Your task to perform on an android device: toggle notification dots Image 0: 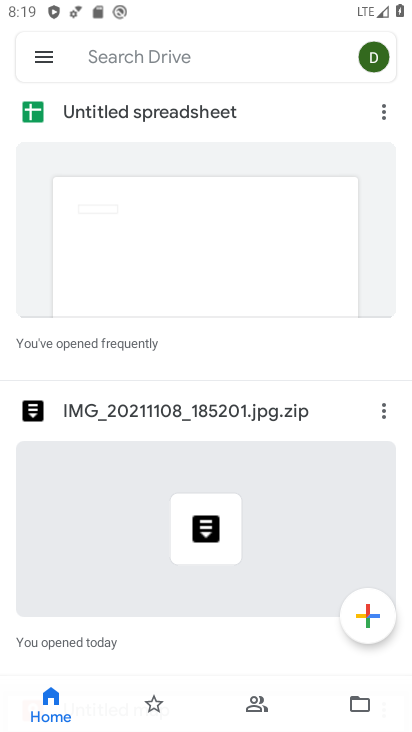
Step 0: press back button
Your task to perform on an android device: toggle notification dots Image 1: 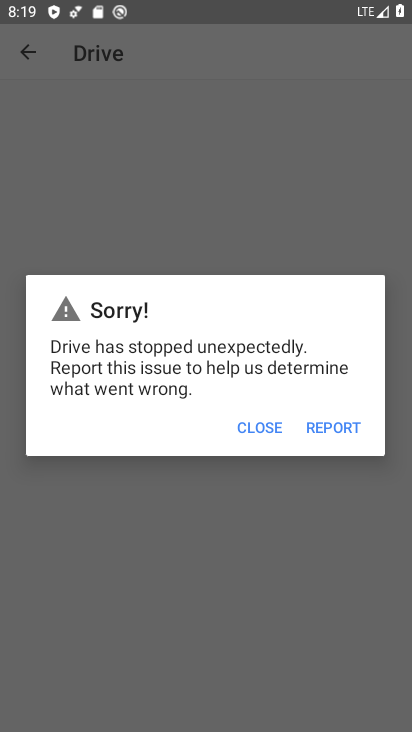
Step 1: press back button
Your task to perform on an android device: toggle notification dots Image 2: 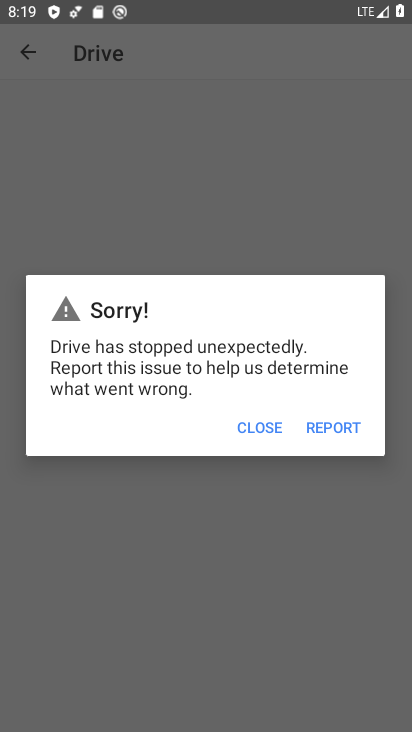
Step 2: press home button
Your task to perform on an android device: toggle notification dots Image 3: 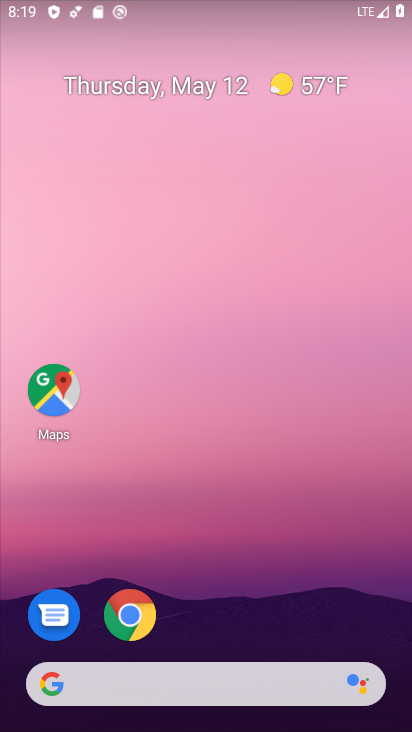
Step 3: drag from (260, 554) to (234, 50)
Your task to perform on an android device: toggle notification dots Image 4: 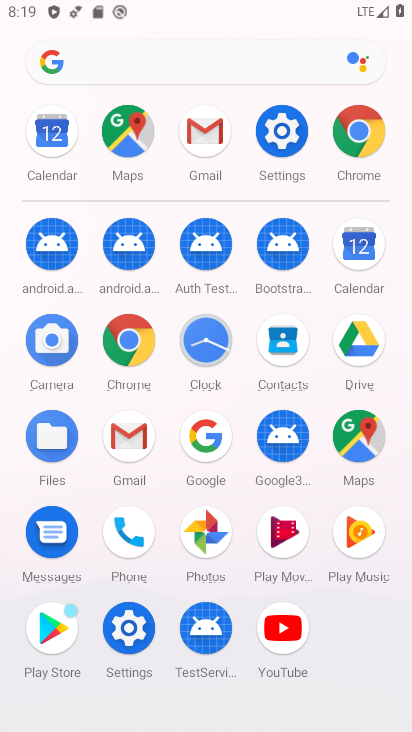
Step 4: click (281, 128)
Your task to perform on an android device: toggle notification dots Image 5: 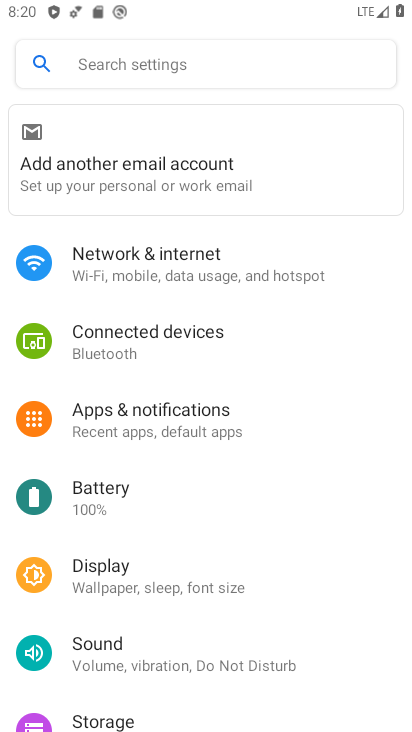
Step 5: click (176, 414)
Your task to perform on an android device: toggle notification dots Image 6: 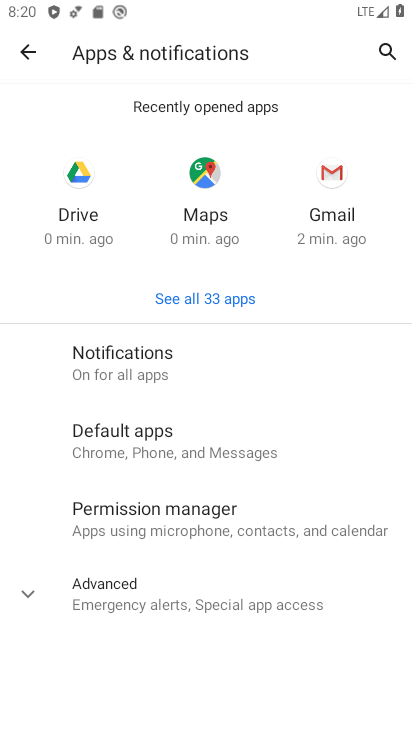
Step 6: click (13, 600)
Your task to perform on an android device: toggle notification dots Image 7: 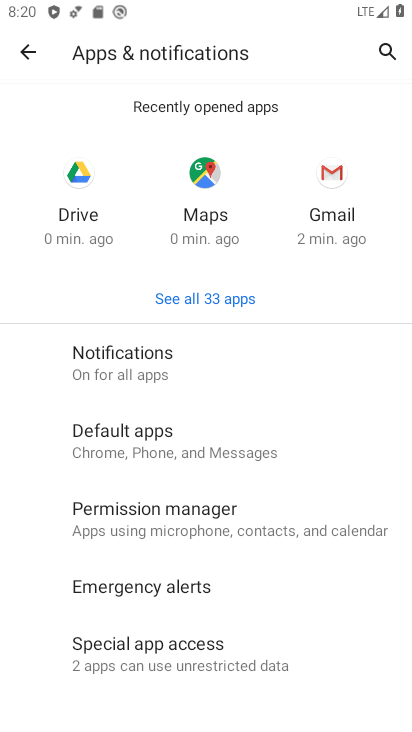
Step 7: drag from (216, 541) to (273, 209)
Your task to perform on an android device: toggle notification dots Image 8: 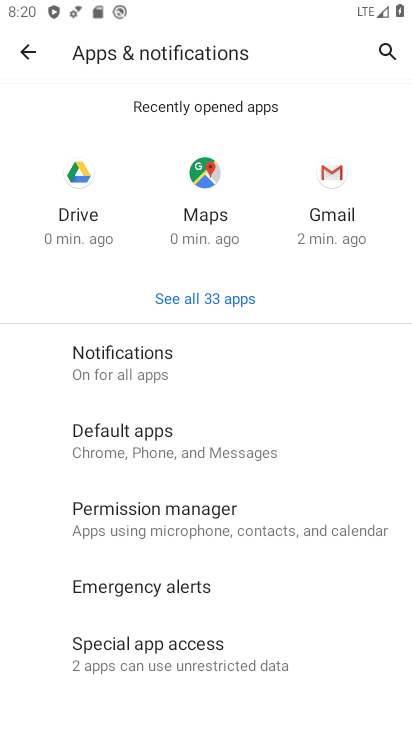
Step 8: click (172, 371)
Your task to perform on an android device: toggle notification dots Image 9: 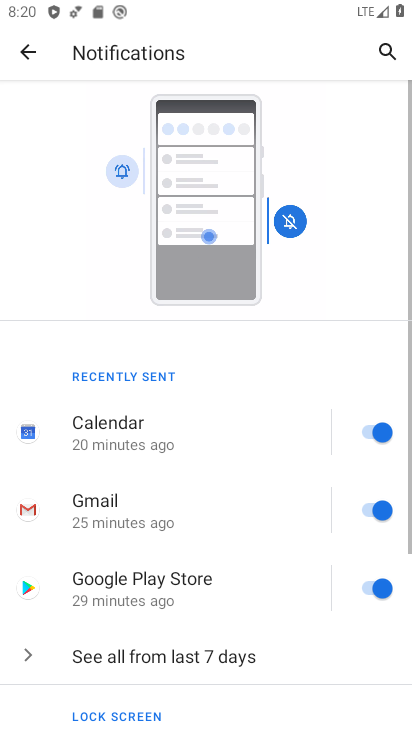
Step 9: drag from (202, 568) to (262, 144)
Your task to perform on an android device: toggle notification dots Image 10: 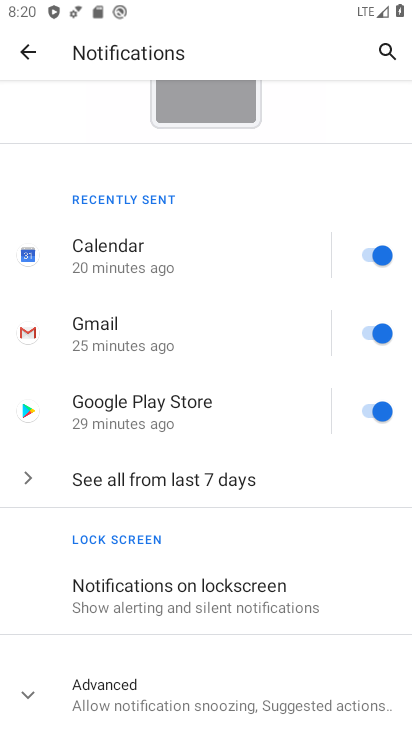
Step 10: click (194, 588)
Your task to perform on an android device: toggle notification dots Image 11: 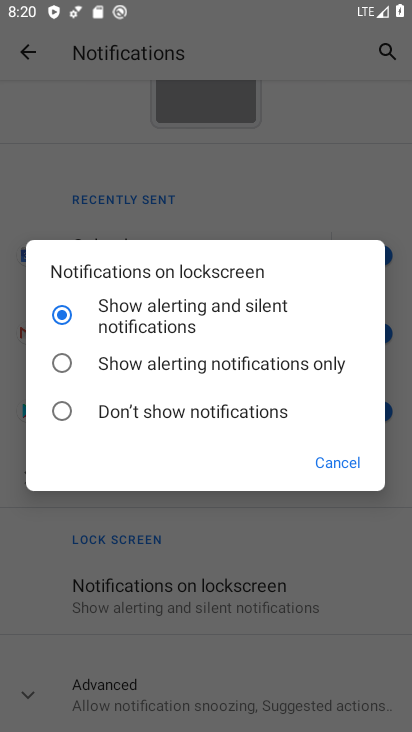
Step 11: click (328, 457)
Your task to perform on an android device: toggle notification dots Image 12: 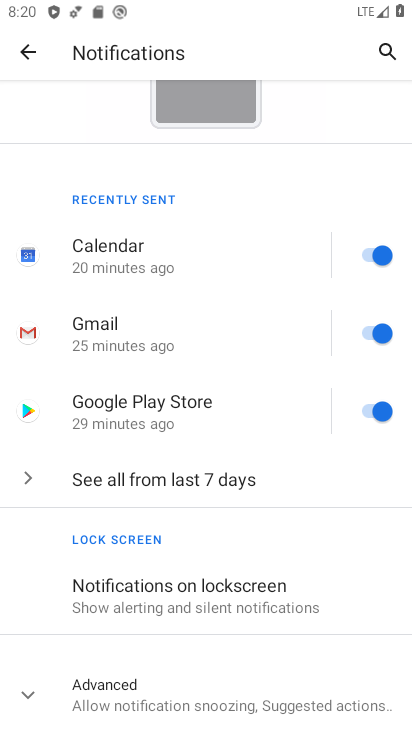
Step 12: click (58, 697)
Your task to perform on an android device: toggle notification dots Image 13: 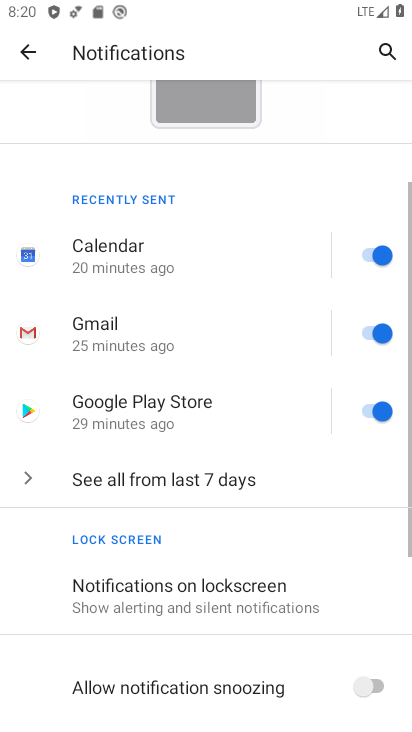
Step 13: drag from (217, 645) to (275, 212)
Your task to perform on an android device: toggle notification dots Image 14: 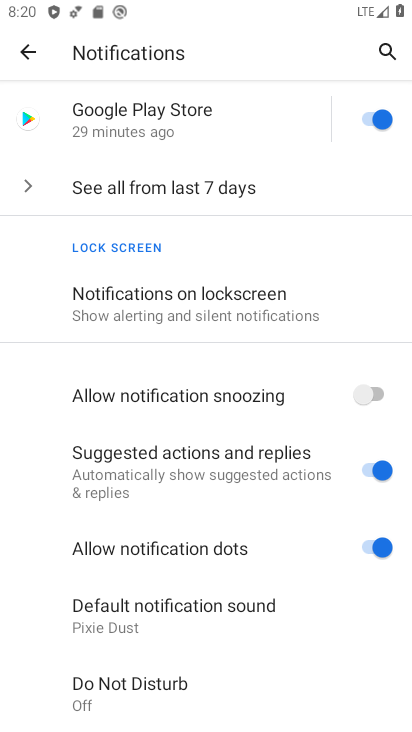
Step 14: click (374, 551)
Your task to perform on an android device: toggle notification dots Image 15: 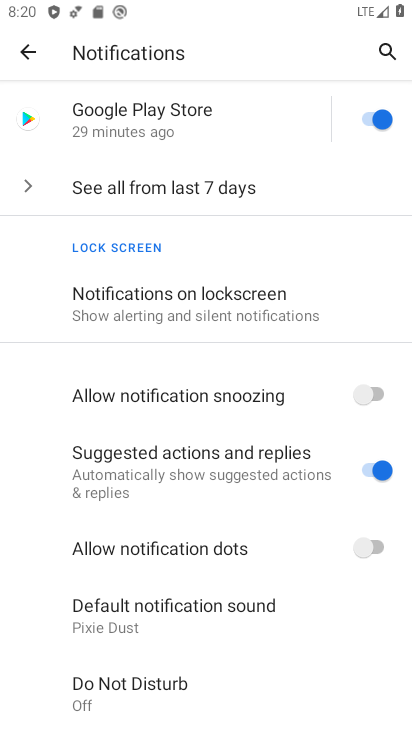
Step 15: task complete